Your task to perform on an android device: turn on data saver in the chrome app Image 0: 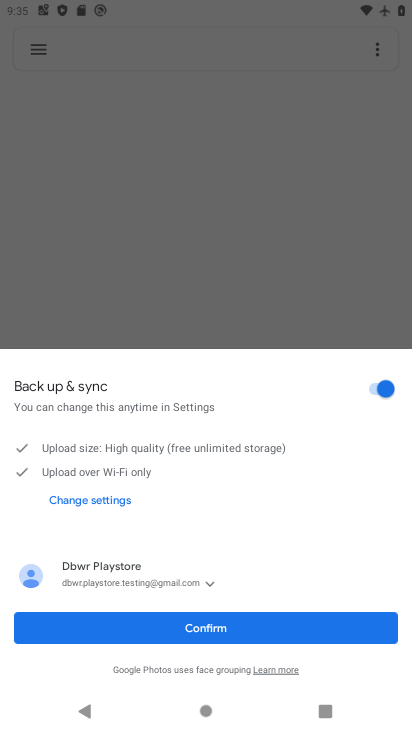
Step 0: press home button
Your task to perform on an android device: turn on data saver in the chrome app Image 1: 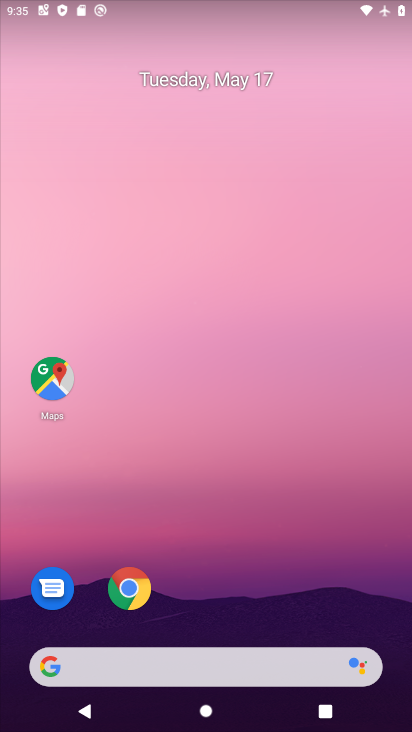
Step 1: drag from (207, 628) to (249, 34)
Your task to perform on an android device: turn on data saver in the chrome app Image 2: 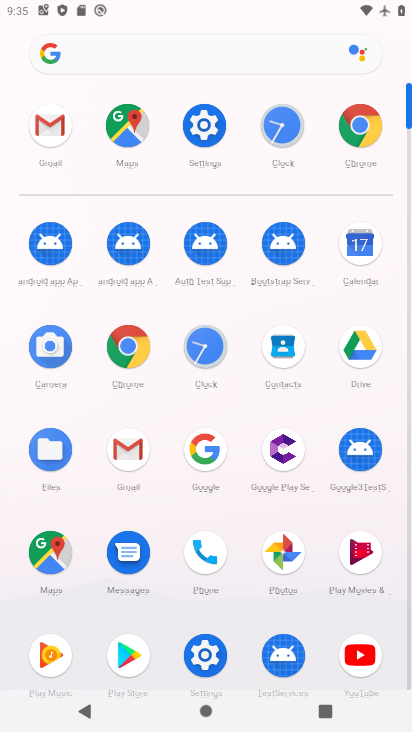
Step 2: click (138, 354)
Your task to perform on an android device: turn on data saver in the chrome app Image 3: 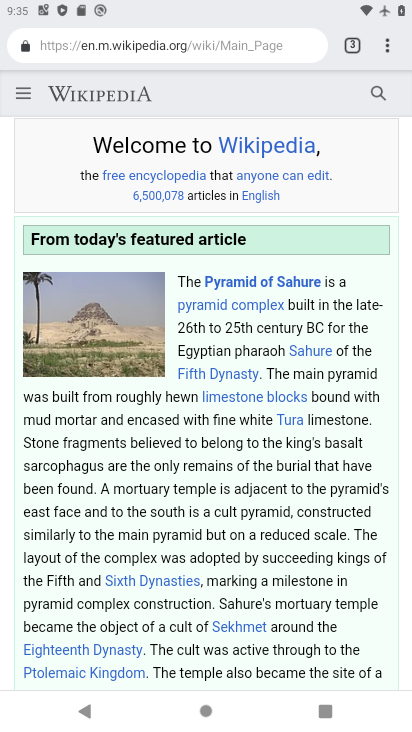
Step 3: click (386, 57)
Your task to perform on an android device: turn on data saver in the chrome app Image 4: 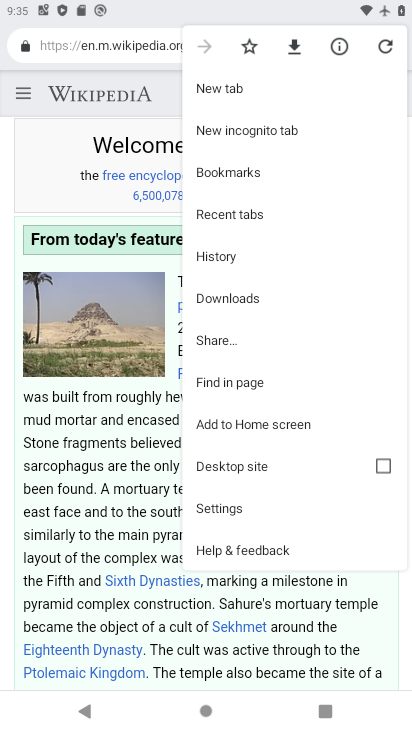
Step 4: click (236, 517)
Your task to perform on an android device: turn on data saver in the chrome app Image 5: 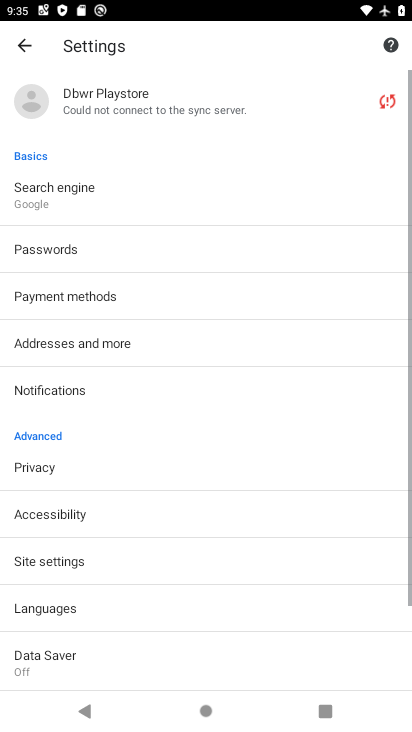
Step 5: drag from (236, 517) to (218, 164)
Your task to perform on an android device: turn on data saver in the chrome app Image 6: 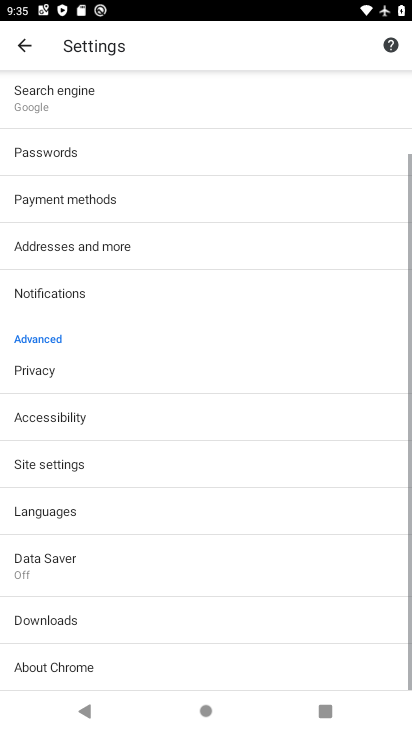
Step 6: click (56, 543)
Your task to perform on an android device: turn on data saver in the chrome app Image 7: 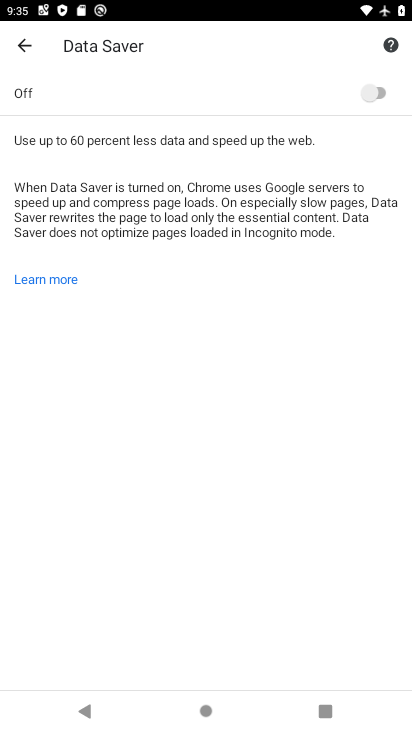
Step 7: click (382, 95)
Your task to perform on an android device: turn on data saver in the chrome app Image 8: 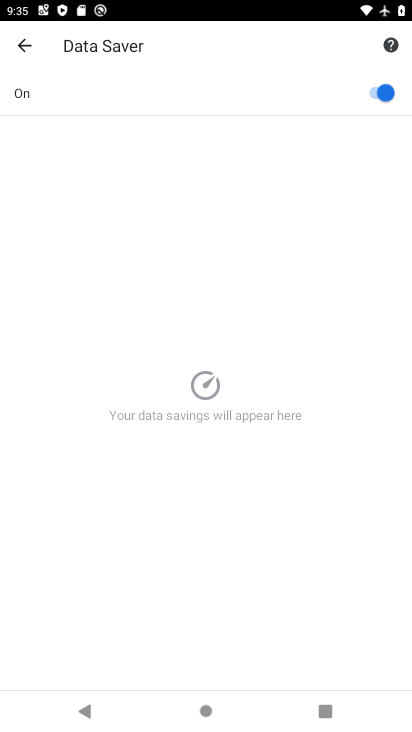
Step 8: task complete